Your task to perform on an android device: Go to location settings Image 0: 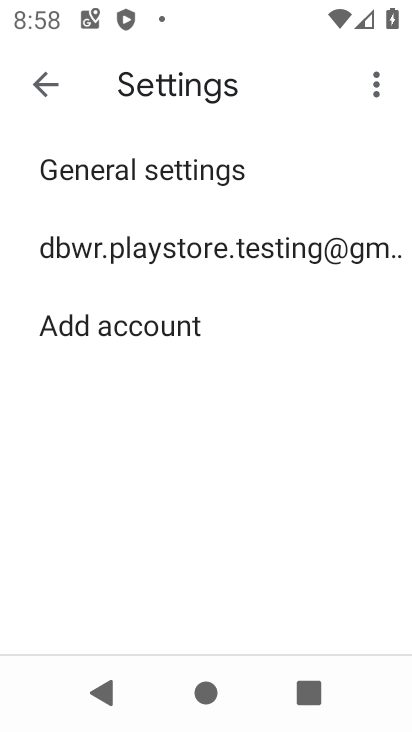
Step 0: press home button
Your task to perform on an android device: Go to location settings Image 1: 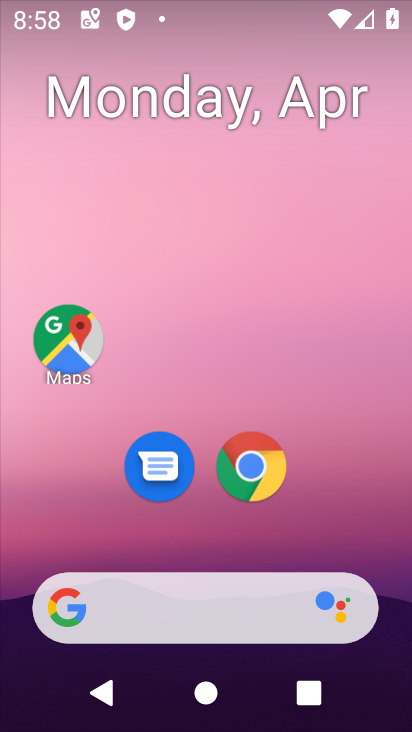
Step 1: drag from (204, 536) to (218, 172)
Your task to perform on an android device: Go to location settings Image 2: 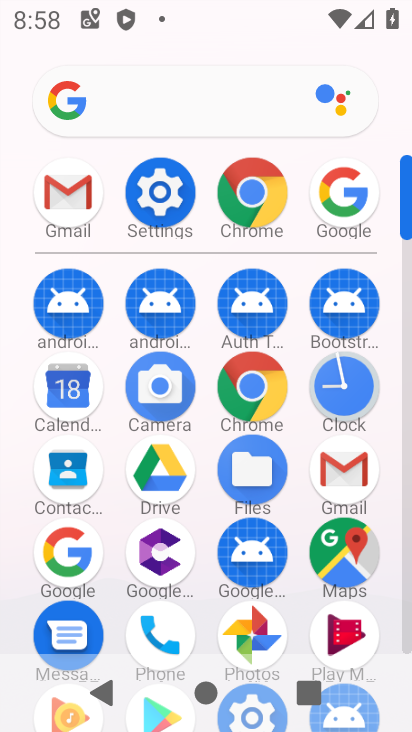
Step 2: click (166, 223)
Your task to perform on an android device: Go to location settings Image 3: 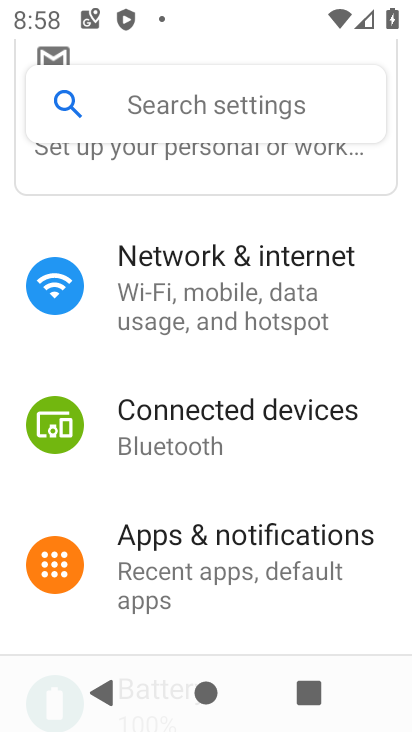
Step 3: drag from (210, 480) to (241, 354)
Your task to perform on an android device: Go to location settings Image 4: 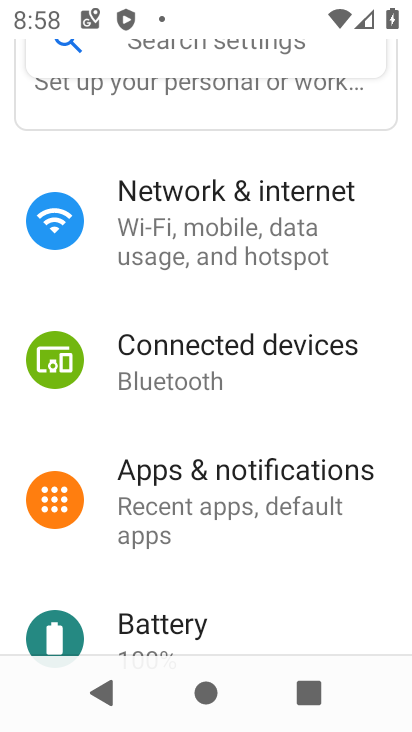
Step 4: drag from (236, 548) to (298, 416)
Your task to perform on an android device: Go to location settings Image 5: 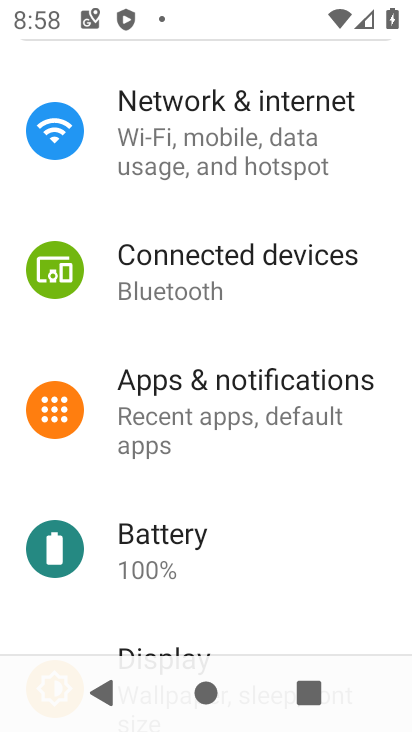
Step 5: drag from (246, 539) to (297, 398)
Your task to perform on an android device: Go to location settings Image 6: 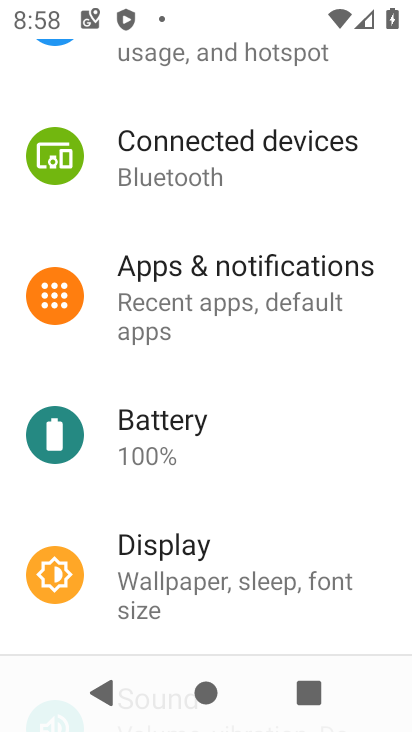
Step 6: drag from (254, 510) to (302, 364)
Your task to perform on an android device: Go to location settings Image 7: 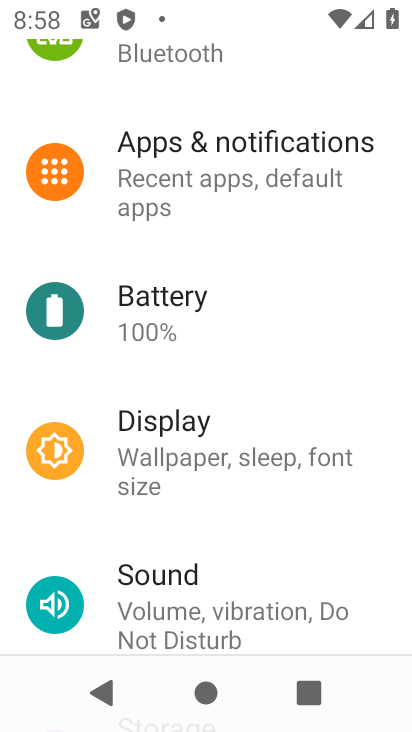
Step 7: drag from (267, 556) to (329, 415)
Your task to perform on an android device: Go to location settings Image 8: 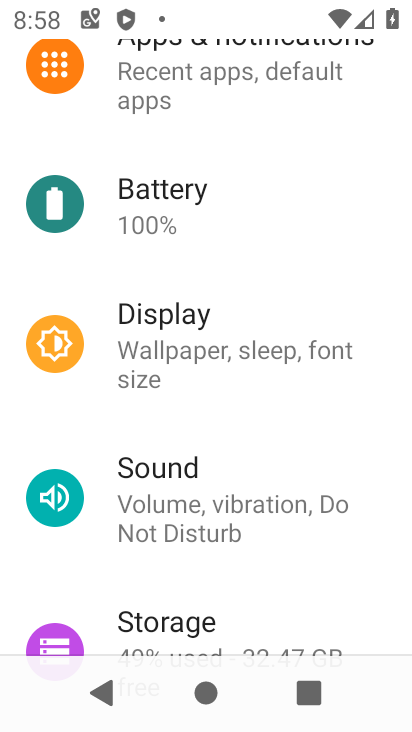
Step 8: drag from (248, 619) to (310, 468)
Your task to perform on an android device: Go to location settings Image 9: 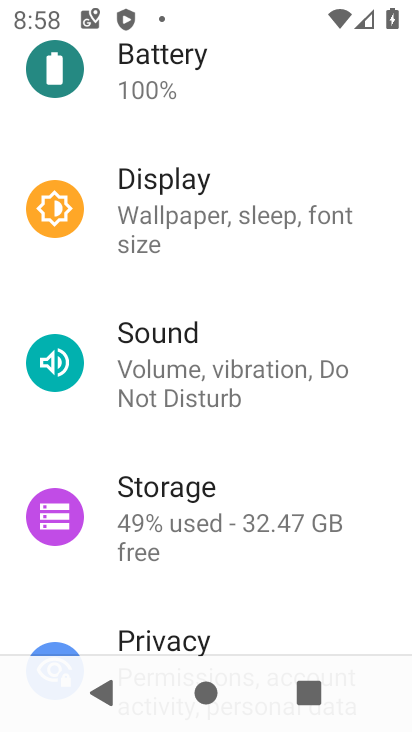
Step 9: drag from (263, 587) to (284, 460)
Your task to perform on an android device: Go to location settings Image 10: 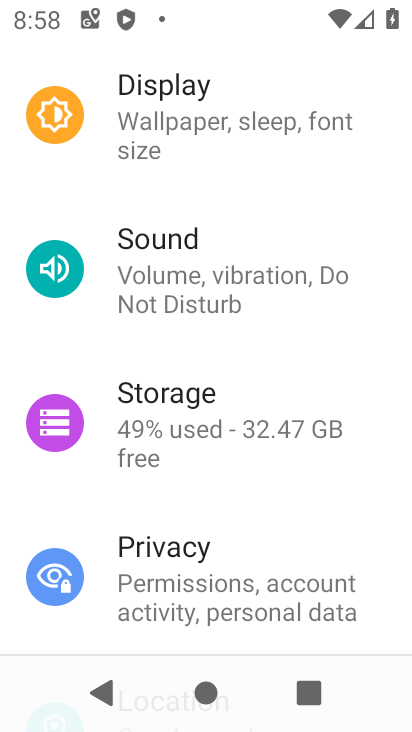
Step 10: drag from (280, 549) to (327, 385)
Your task to perform on an android device: Go to location settings Image 11: 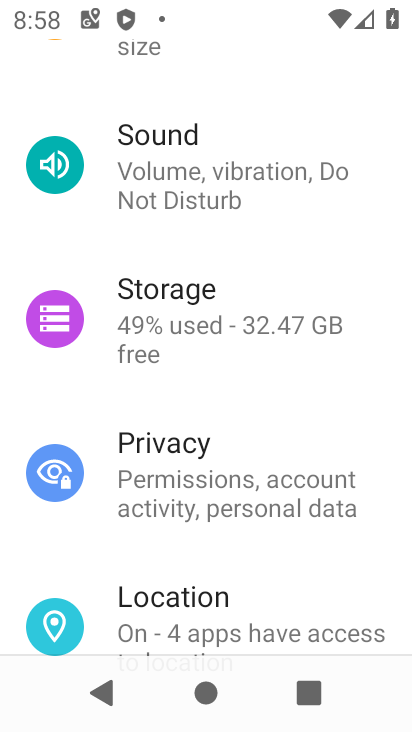
Step 11: drag from (255, 589) to (293, 442)
Your task to perform on an android device: Go to location settings Image 12: 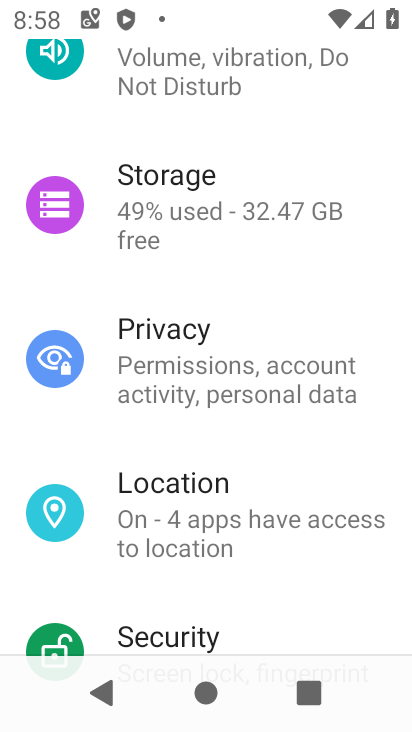
Step 12: click (212, 482)
Your task to perform on an android device: Go to location settings Image 13: 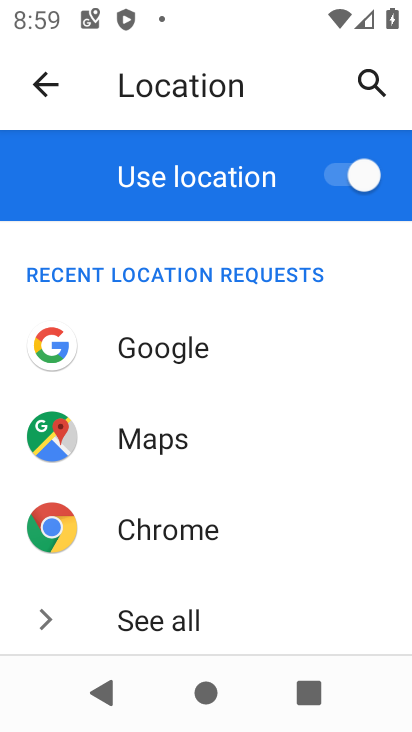
Step 13: task complete